Your task to perform on an android device: change alarm snooze length Image 0: 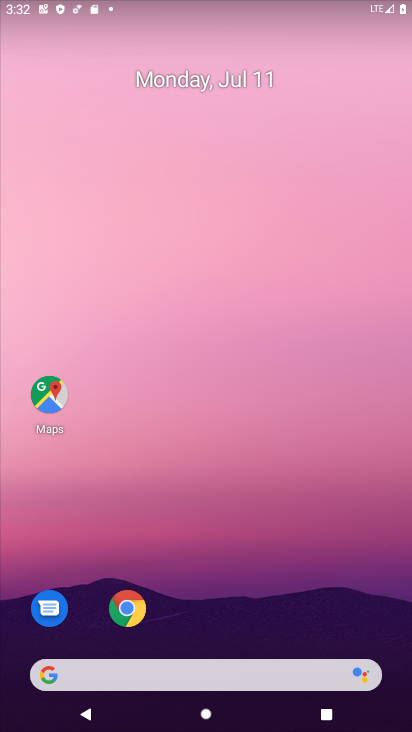
Step 0: drag from (391, 643) to (364, 264)
Your task to perform on an android device: change alarm snooze length Image 1: 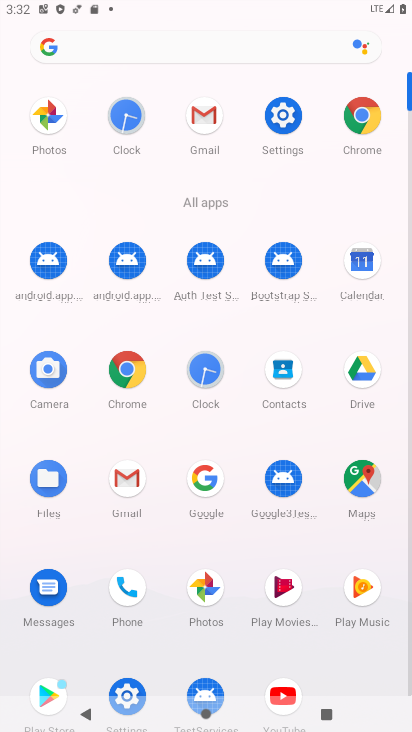
Step 1: click (210, 388)
Your task to perform on an android device: change alarm snooze length Image 2: 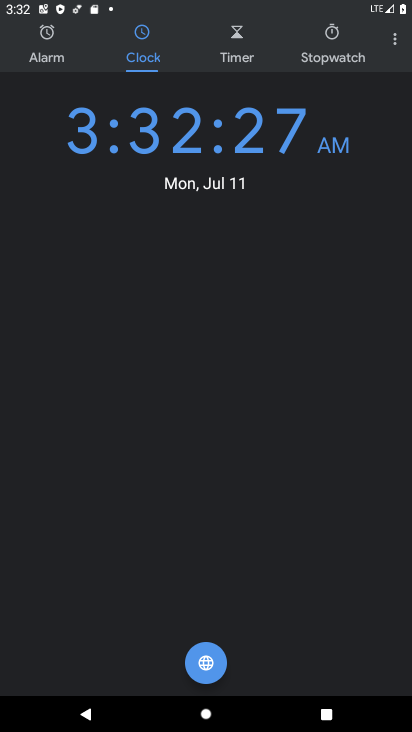
Step 2: click (382, 35)
Your task to perform on an android device: change alarm snooze length Image 3: 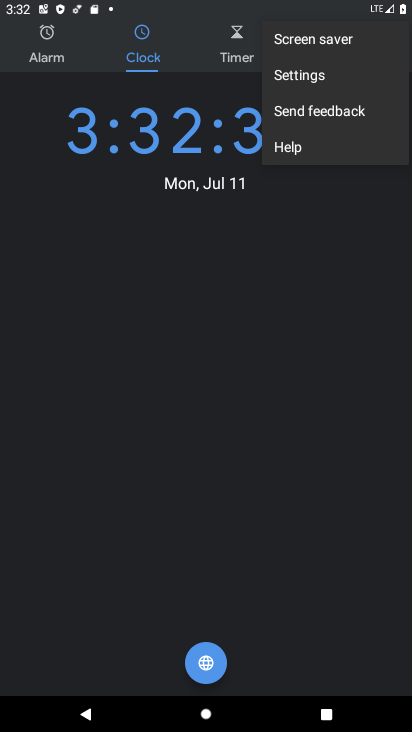
Step 3: click (301, 91)
Your task to perform on an android device: change alarm snooze length Image 4: 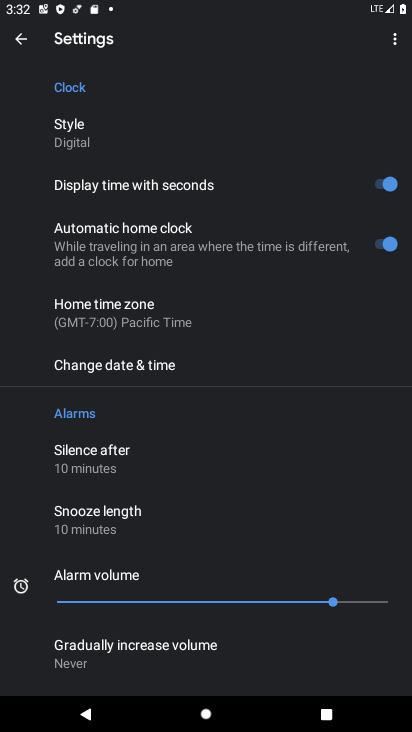
Step 4: click (128, 530)
Your task to perform on an android device: change alarm snooze length Image 5: 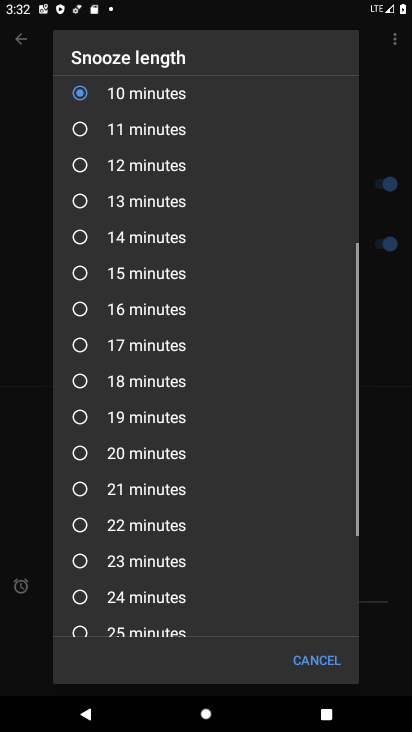
Step 5: click (128, 530)
Your task to perform on an android device: change alarm snooze length Image 6: 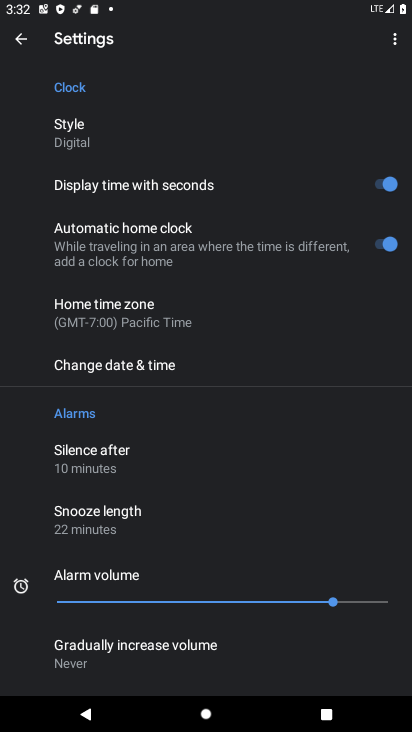
Step 6: task complete